Your task to perform on an android device: Play the last video I watched on Youtube Image 0: 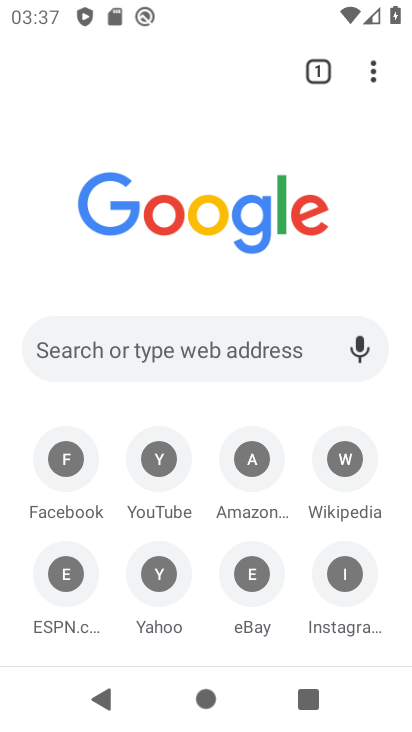
Step 0: press home button
Your task to perform on an android device: Play the last video I watched on Youtube Image 1: 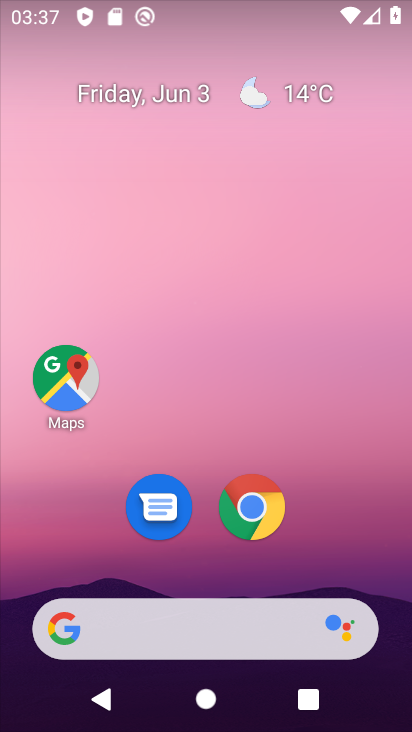
Step 1: drag from (298, 558) to (268, 92)
Your task to perform on an android device: Play the last video I watched on Youtube Image 2: 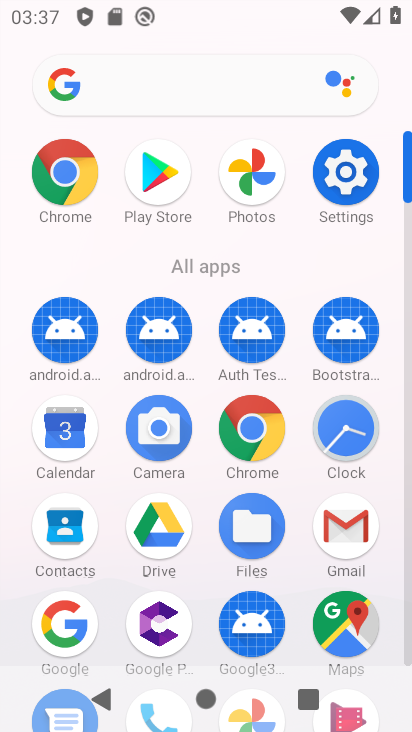
Step 2: drag from (386, 596) to (387, 173)
Your task to perform on an android device: Play the last video I watched on Youtube Image 3: 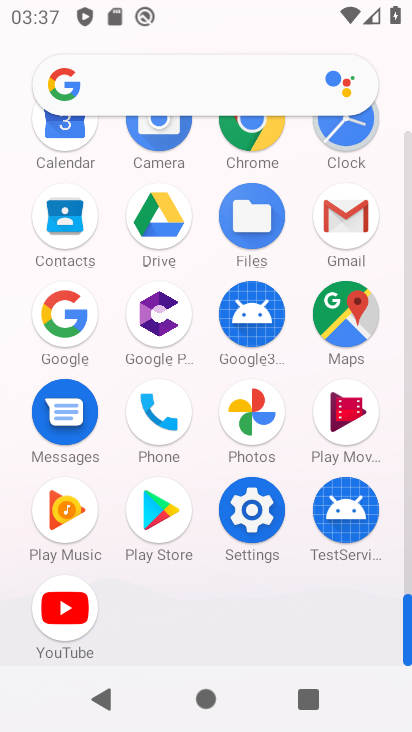
Step 3: click (63, 625)
Your task to perform on an android device: Play the last video I watched on Youtube Image 4: 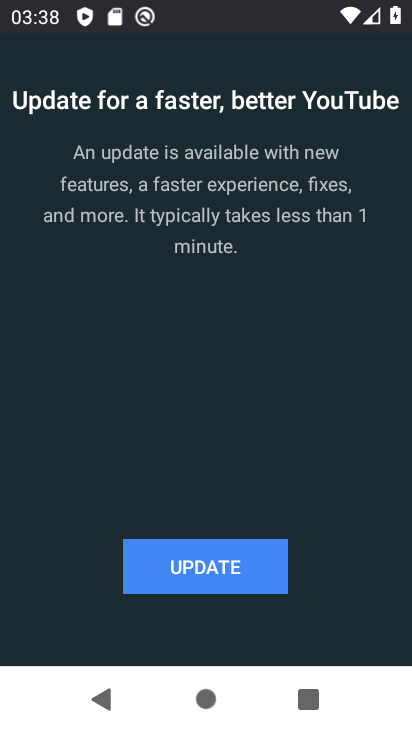
Step 4: click (187, 556)
Your task to perform on an android device: Play the last video I watched on Youtube Image 5: 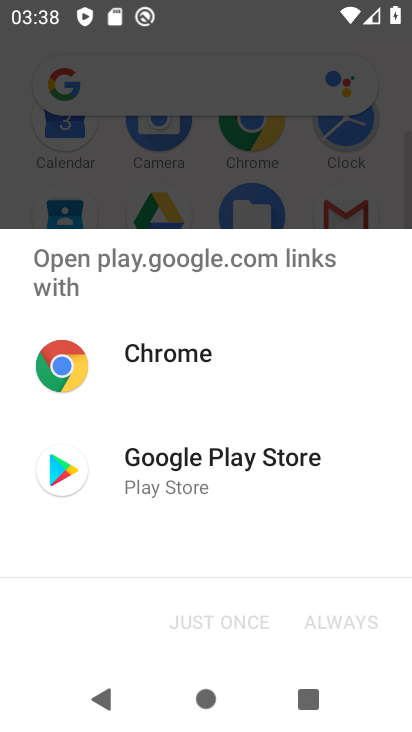
Step 5: click (64, 472)
Your task to perform on an android device: Play the last video I watched on Youtube Image 6: 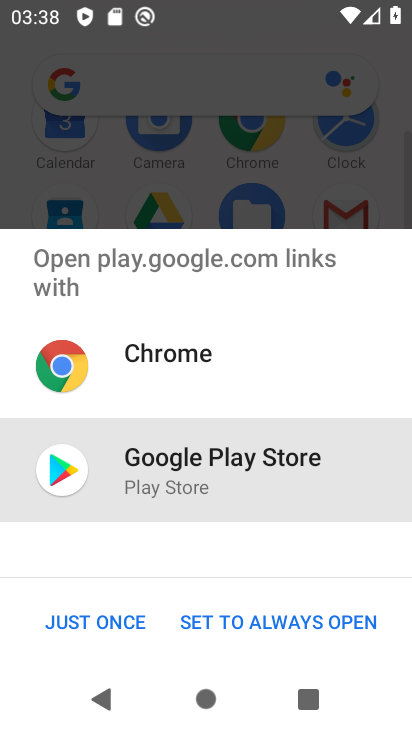
Step 6: click (99, 622)
Your task to perform on an android device: Play the last video I watched on Youtube Image 7: 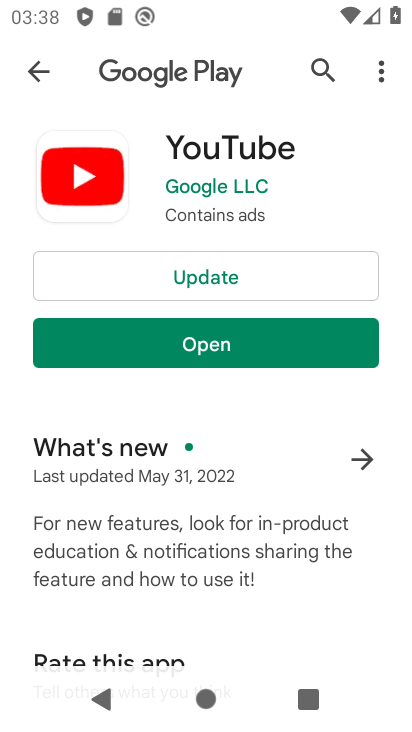
Step 7: click (155, 286)
Your task to perform on an android device: Play the last video I watched on Youtube Image 8: 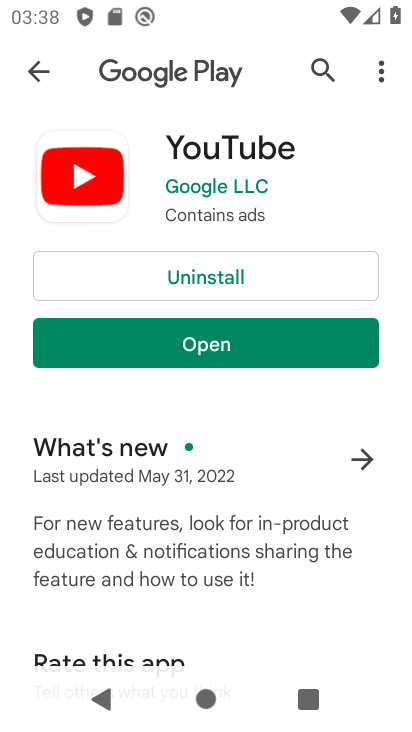
Step 8: click (261, 342)
Your task to perform on an android device: Play the last video I watched on Youtube Image 9: 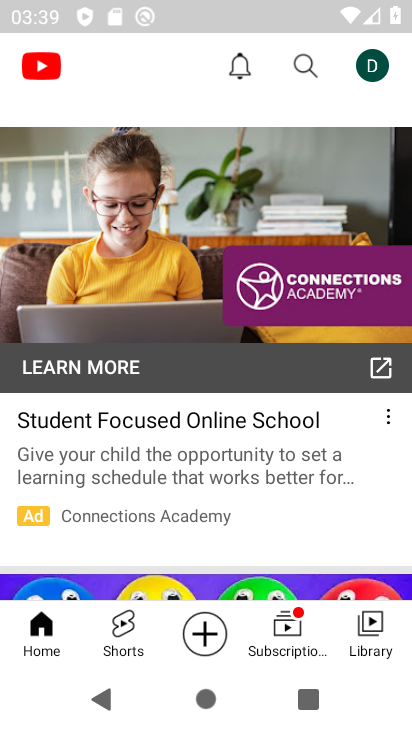
Step 9: click (374, 633)
Your task to perform on an android device: Play the last video I watched on Youtube Image 10: 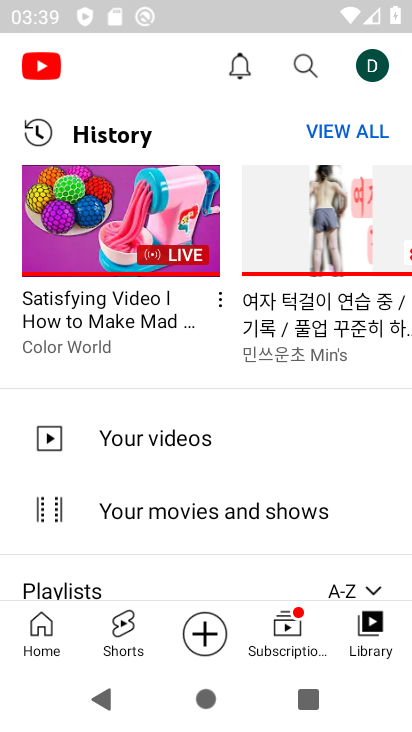
Step 10: click (113, 223)
Your task to perform on an android device: Play the last video I watched on Youtube Image 11: 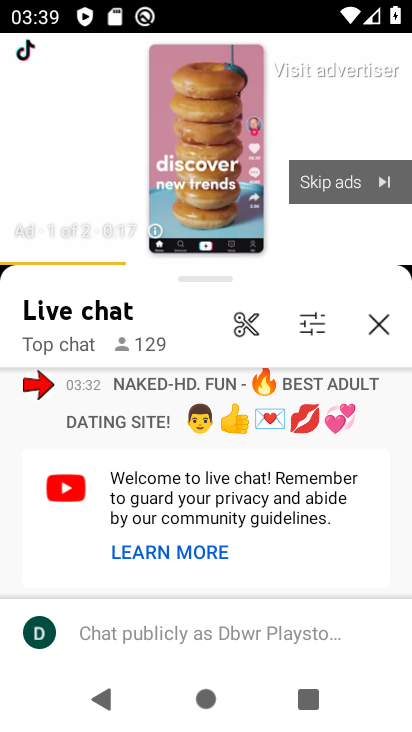
Step 11: click (342, 198)
Your task to perform on an android device: Play the last video I watched on Youtube Image 12: 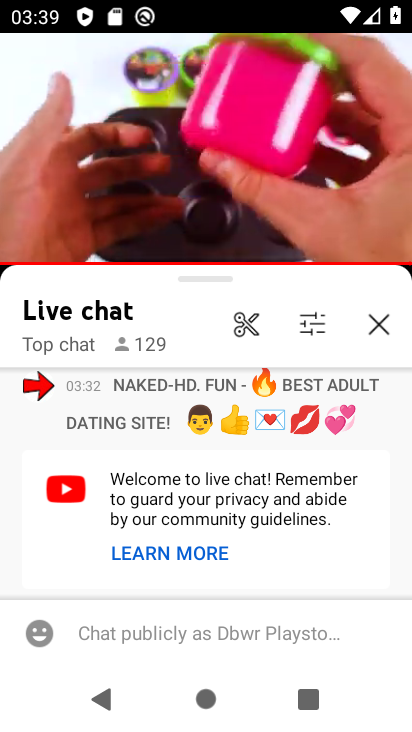
Step 12: task complete